Your task to perform on an android device: turn off javascript in the chrome app Image 0: 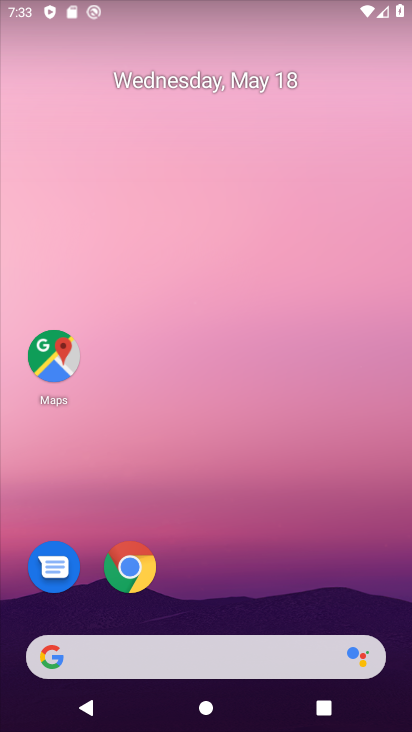
Step 0: click (152, 573)
Your task to perform on an android device: turn off javascript in the chrome app Image 1: 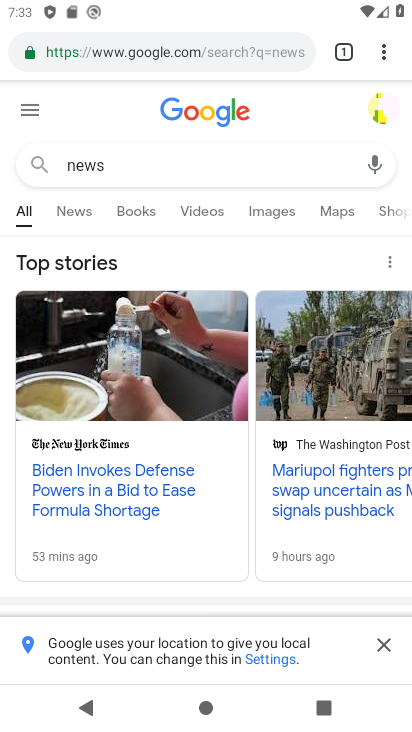
Step 1: click (385, 43)
Your task to perform on an android device: turn off javascript in the chrome app Image 2: 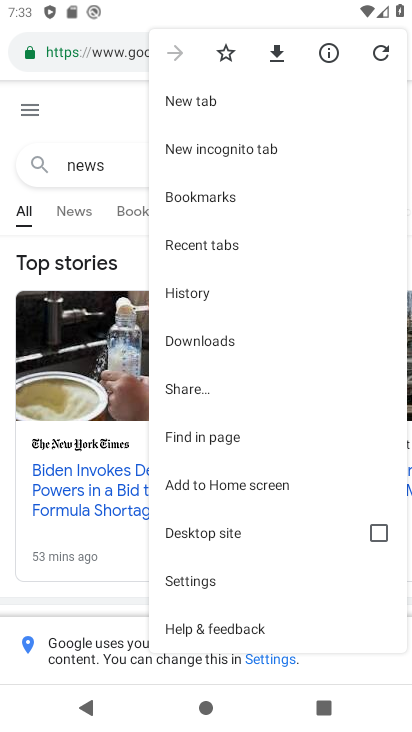
Step 2: drag from (258, 421) to (311, 56)
Your task to perform on an android device: turn off javascript in the chrome app Image 3: 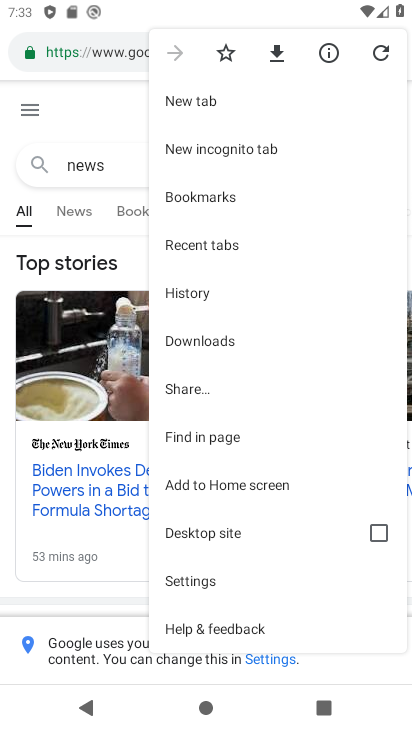
Step 3: click (205, 584)
Your task to perform on an android device: turn off javascript in the chrome app Image 4: 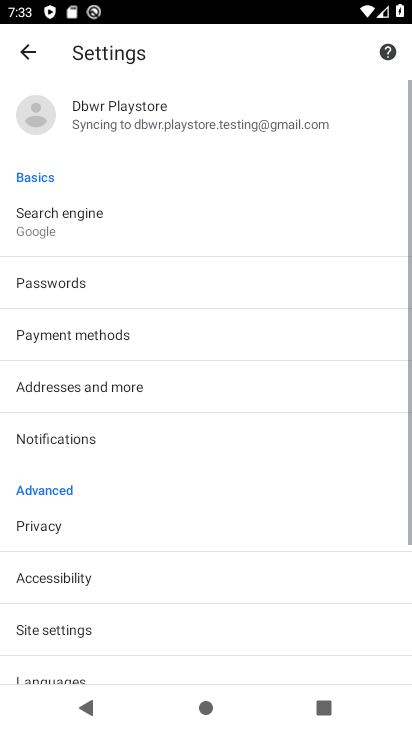
Step 4: drag from (205, 584) to (271, 147)
Your task to perform on an android device: turn off javascript in the chrome app Image 5: 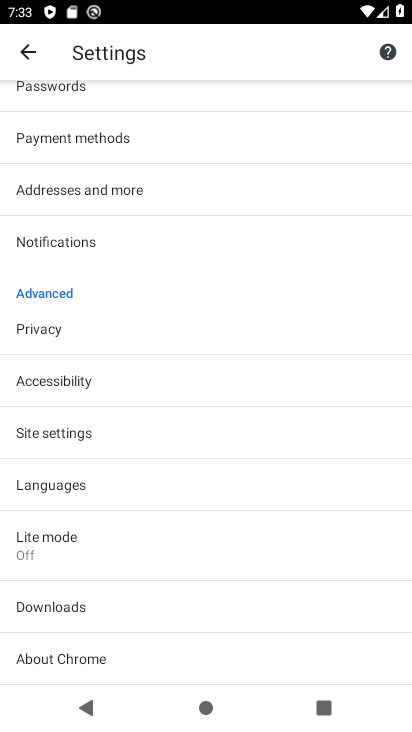
Step 5: click (148, 437)
Your task to perform on an android device: turn off javascript in the chrome app Image 6: 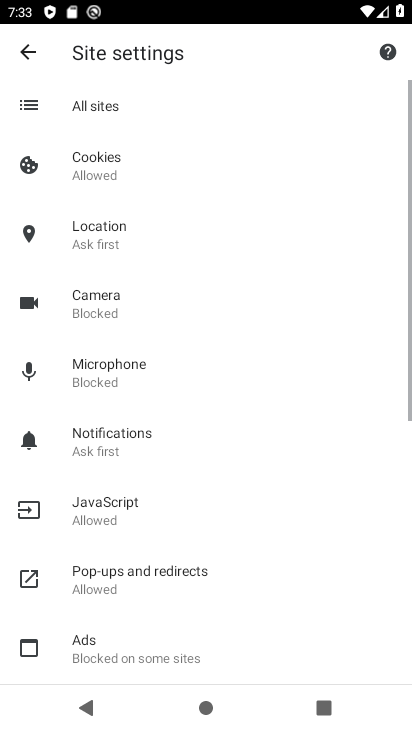
Step 6: drag from (179, 557) to (231, 277)
Your task to perform on an android device: turn off javascript in the chrome app Image 7: 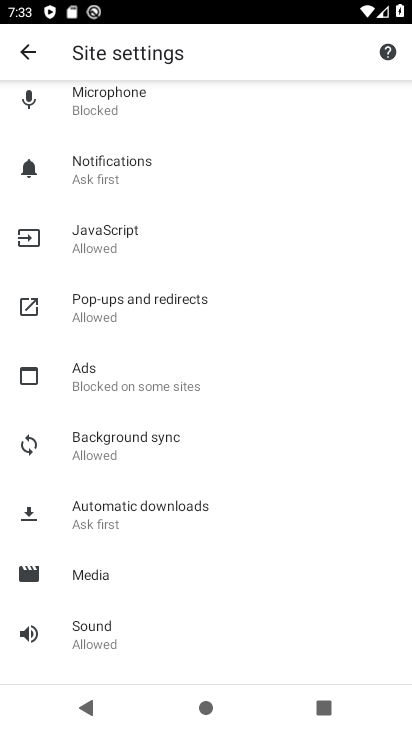
Step 7: click (213, 237)
Your task to perform on an android device: turn off javascript in the chrome app Image 8: 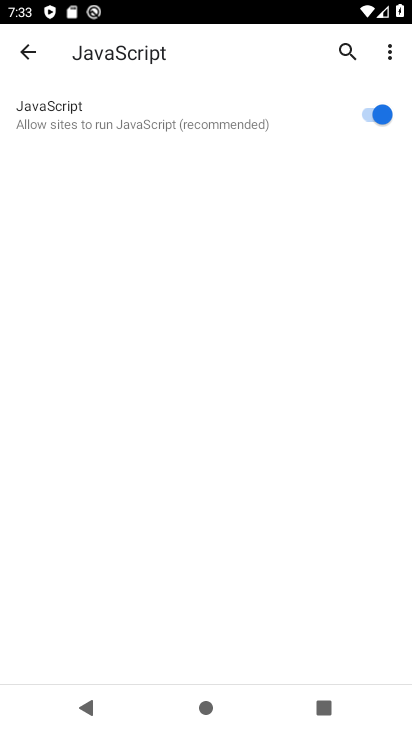
Step 8: click (364, 105)
Your task to perform on an android device: turn off javascript in the chrome app Image 9: 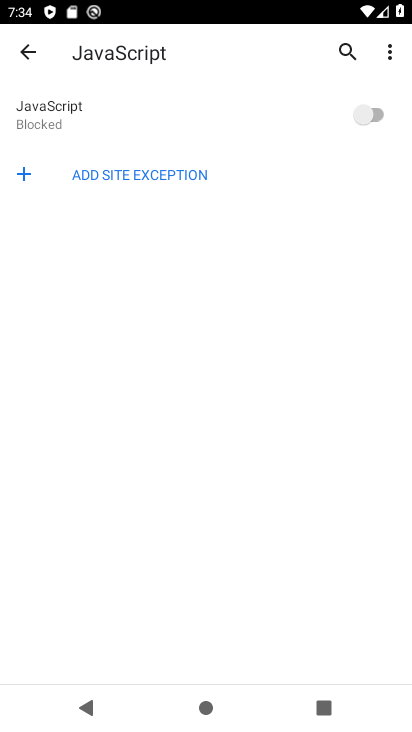
Step 9: task complete